Your task to perform on an android device: add a contact Image 0: 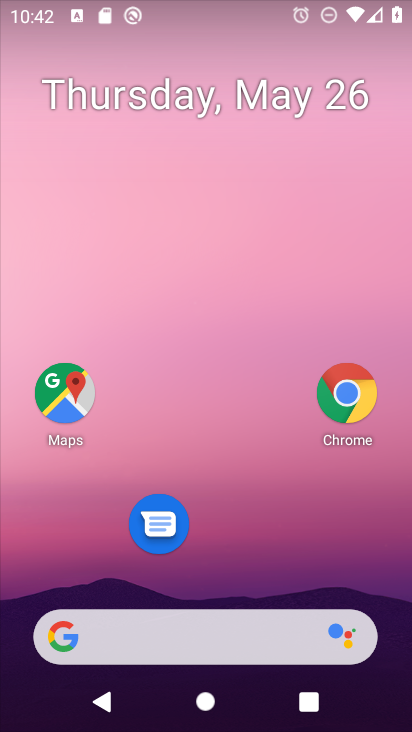
Step 0: drag from (244, 504) to (259, 49)
Your task to perform on an android device: add a contact Image 1: 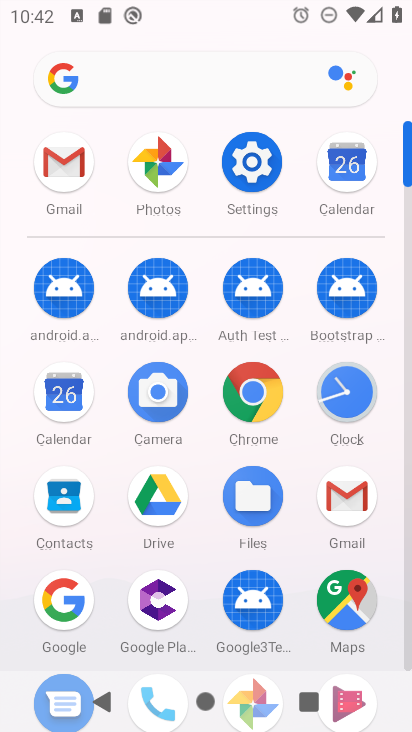
Step 1: click (69, 499)
Your task to perform on an android device: add a contact Image 2: 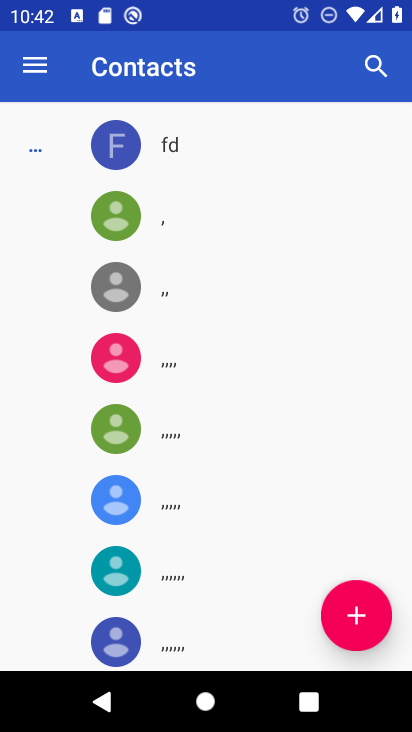
Step 2: click (346, 615)
Your task to perform on an android device: add a contact Image 3: 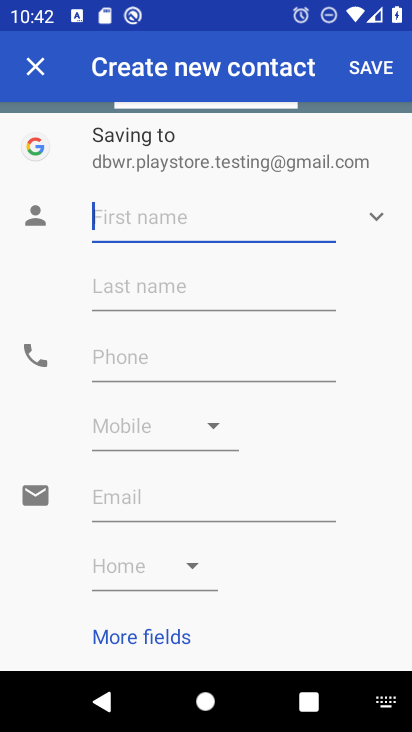
Step 3: type "Xu"
Your task to perform on an android device: add a contact Image 4: 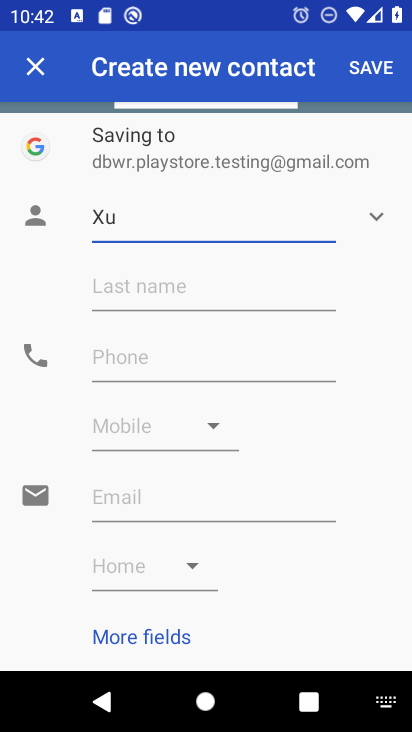
Step 4: click (216, 362)
Your task to perform on an android device: add a contact Image 5: 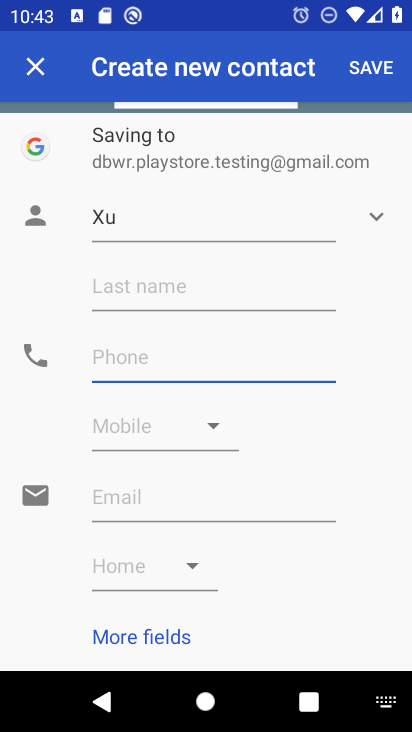
Step 5: type "0113000001"
Your task to perform on an android device: add a contact Image 6: 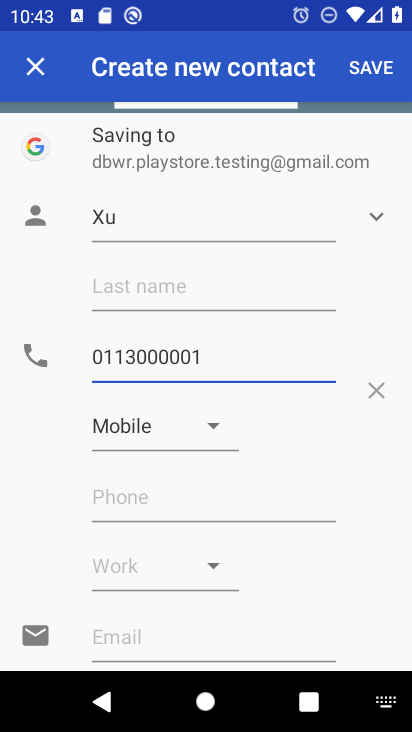
Step 6: click (381, 68)
Your task to perform on an android device: add a contact Image 7: 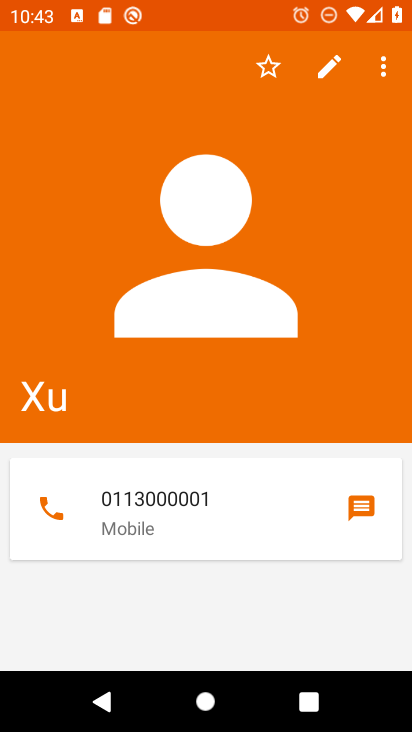
Step 7: task complete